Your task to perform on an android device: Search for good Korean restaurants Image 0: 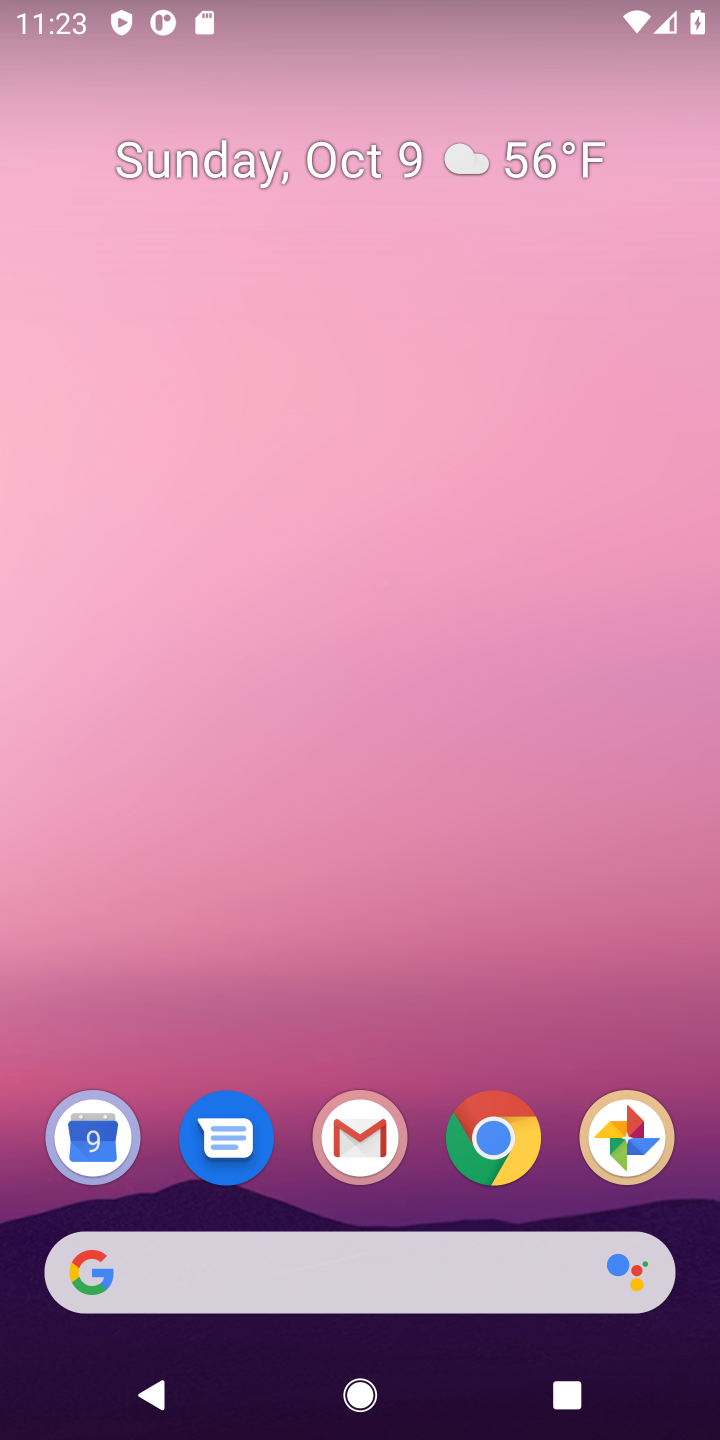
Step 0: drag from (417, 1072) to (617, 28)
Your task to perform on an android device: Search for good Korean restaurants Image 1: 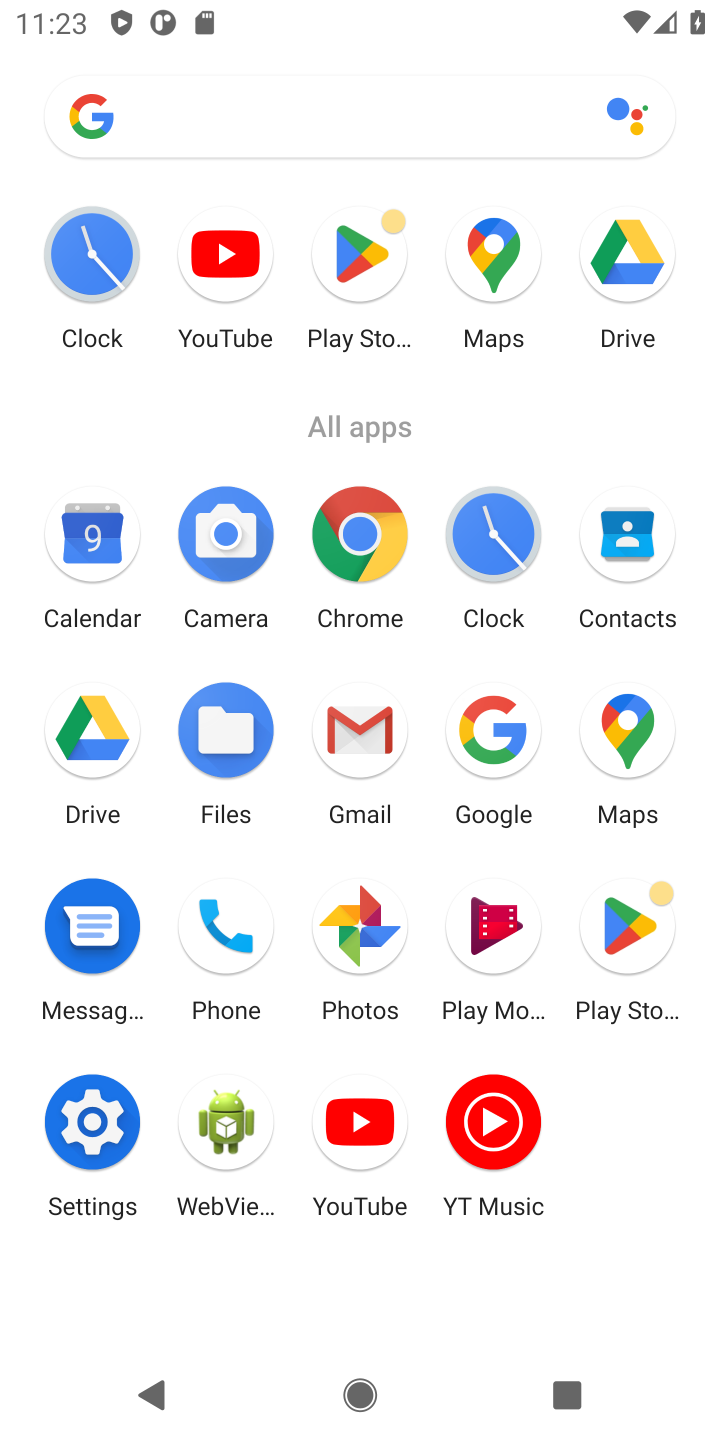
Step 1: click (367, 525)
Your task to perform on an android device: Search for good Korean restaurants Image 2: 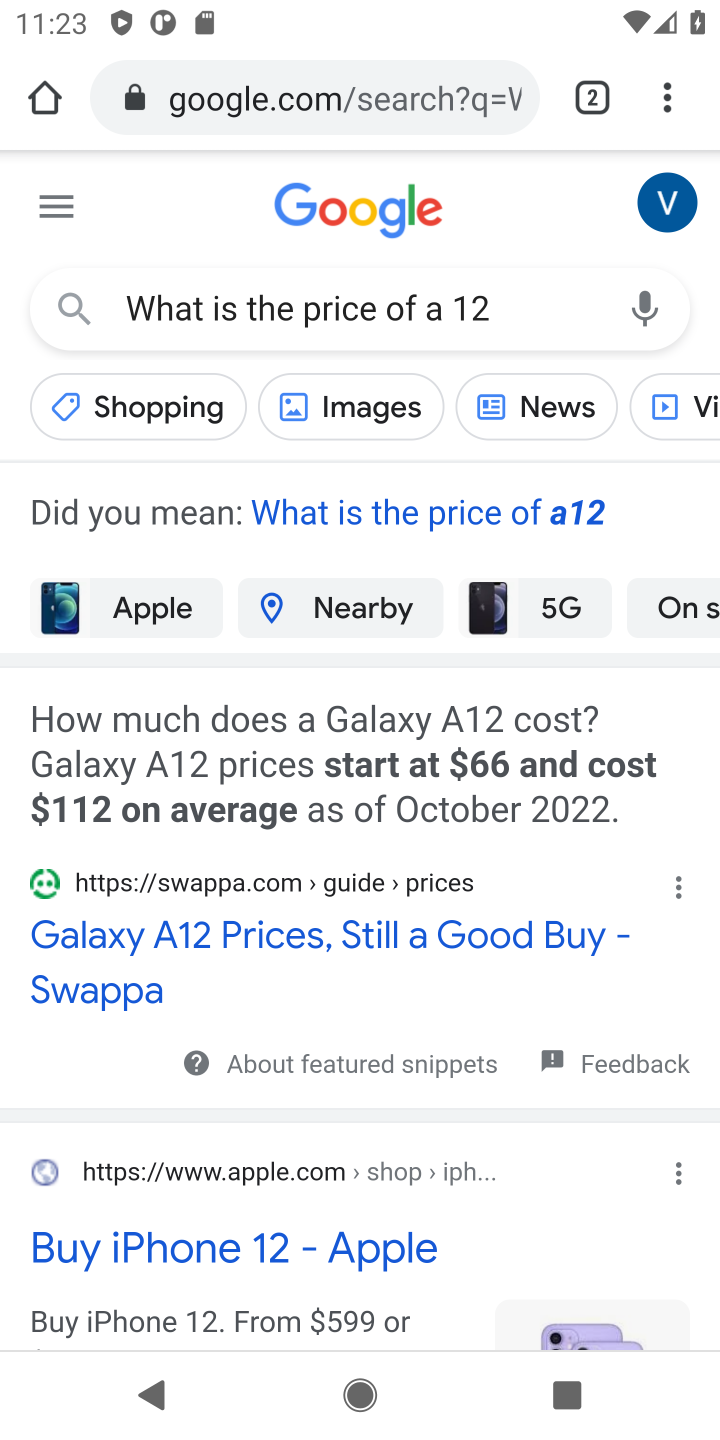
Step 2: click (243, 89)
Your task to perform on an android device: Search for good Korean restaurants Image 3: 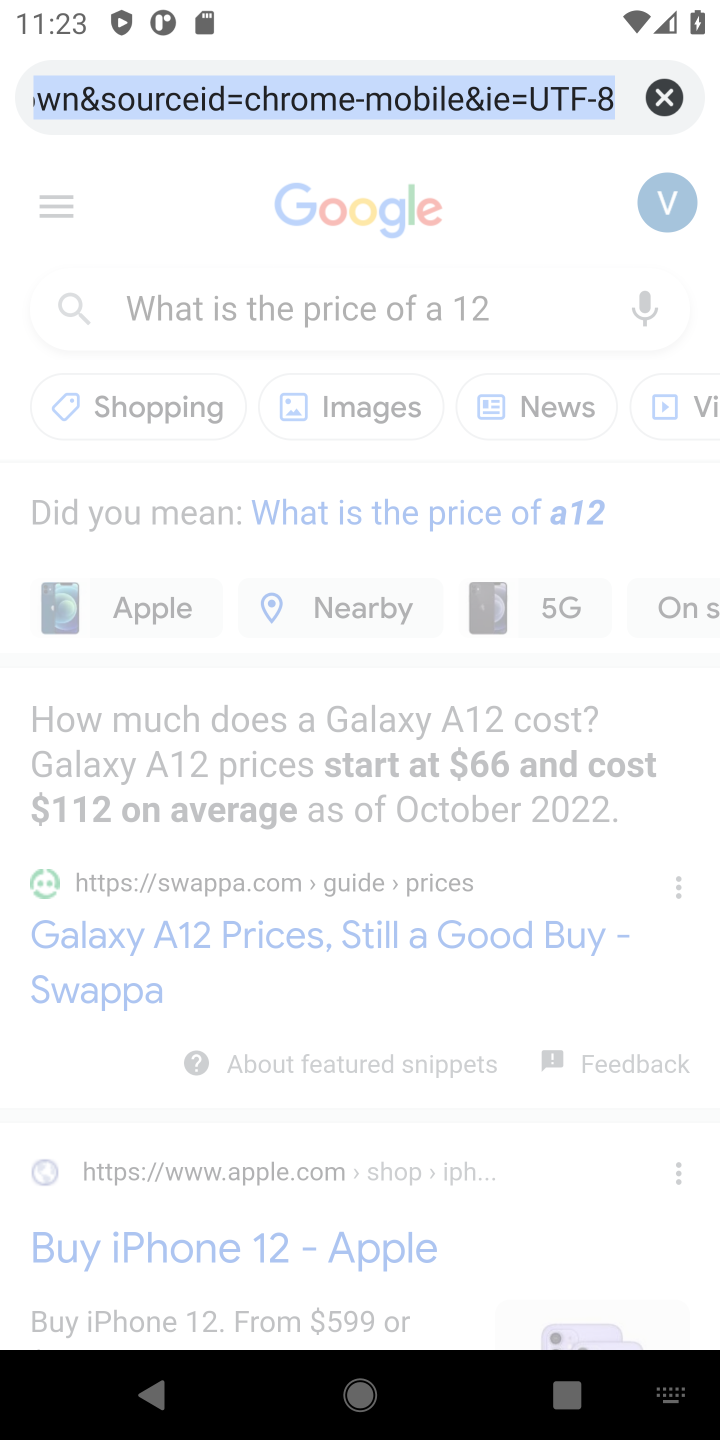
Step 3: click (666, 109)
Your task to perform on an android device: Search for good Korean restaurants Image 4: 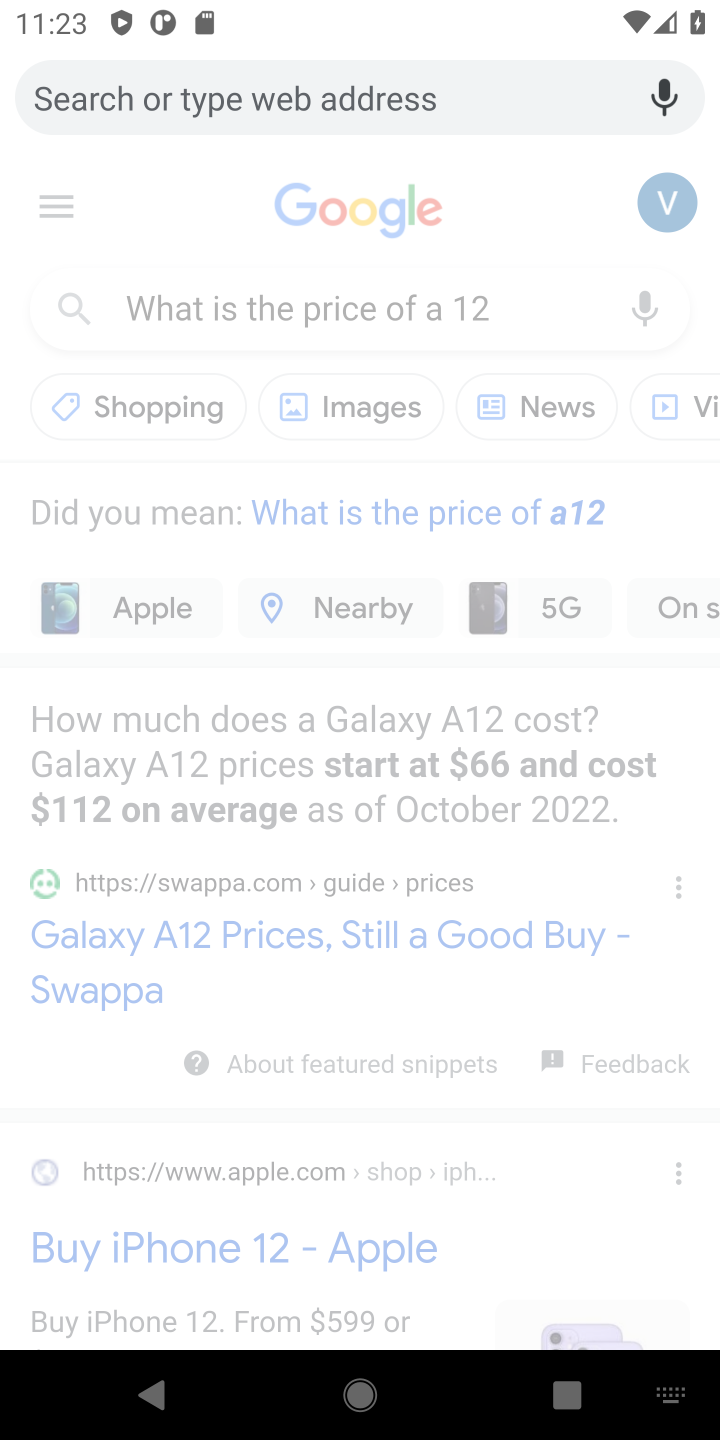
Step 4: type "Search for good Korean restaurants"
Your task to perform on an android device: Search for good Korean restaurants Image 5: 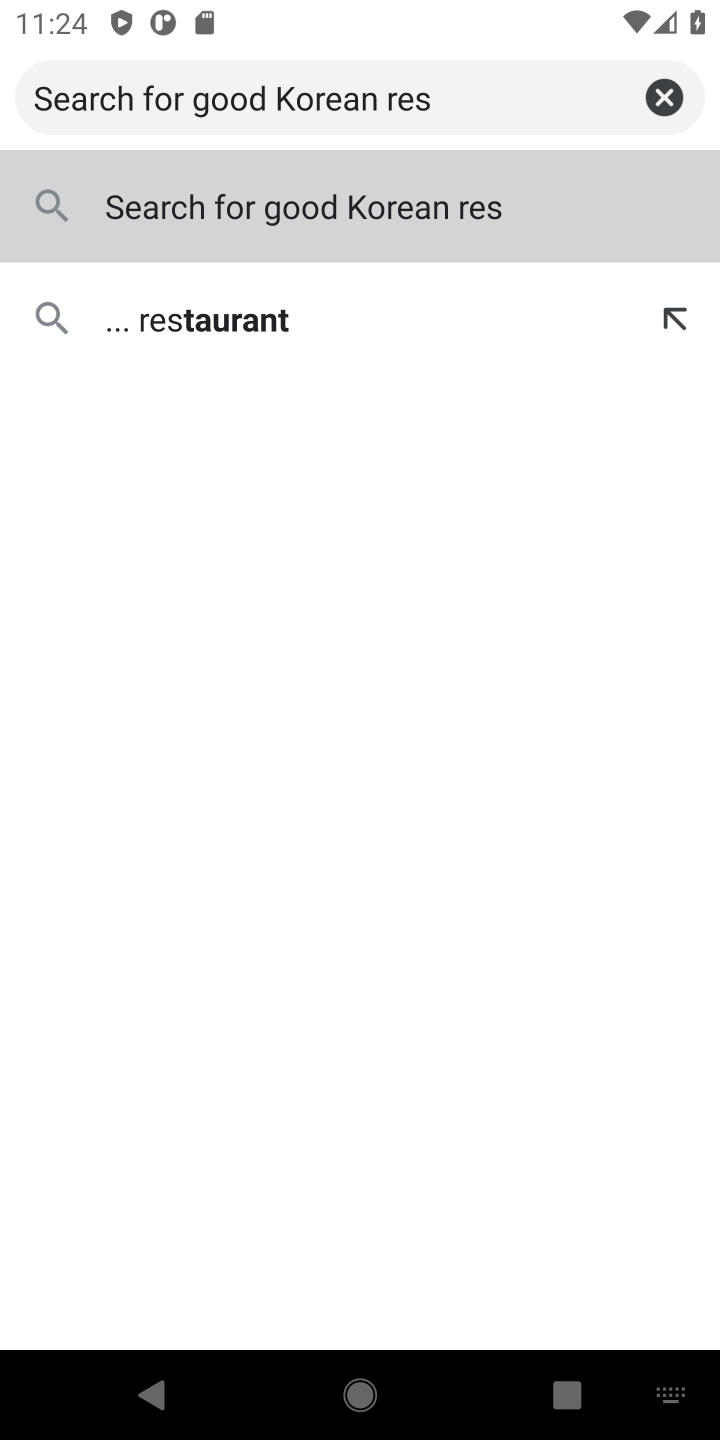
Step 5: click (361, 220)
Your task to perform on an android device: Search for good Korean restaurants Image 6: 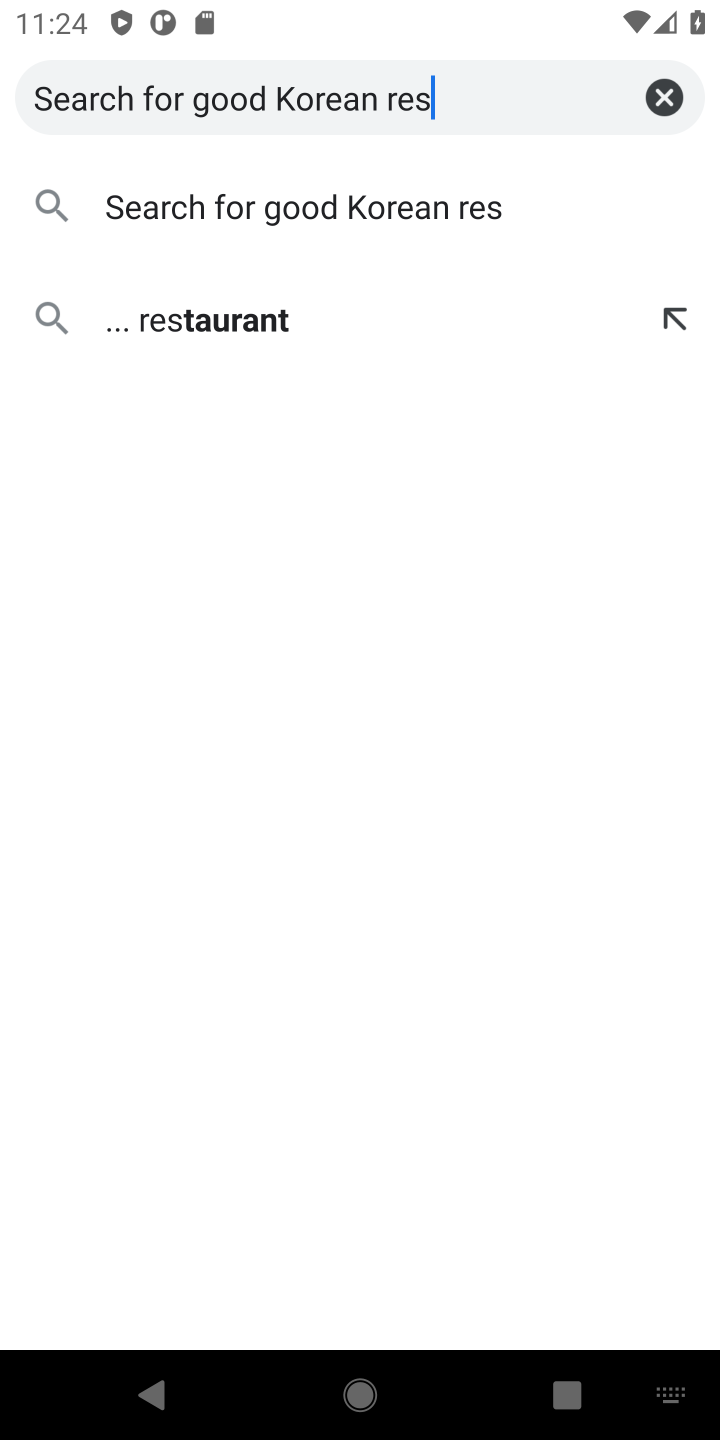
Step 6: click (360, 204)
Your task to perform on an android device: Search for good Korean restaurants Image 7: 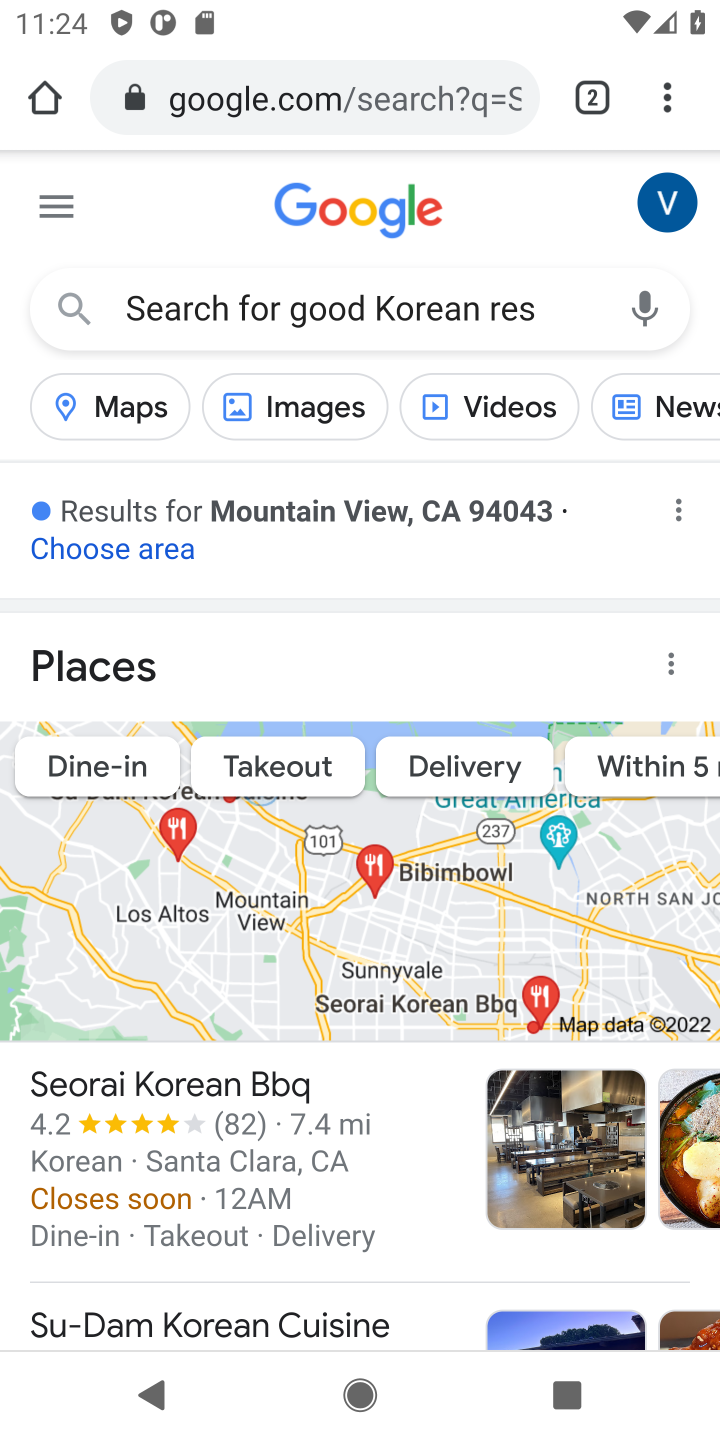
Step 7: task complete